Your task to perform on an android device: turn notification dots on Image 0: 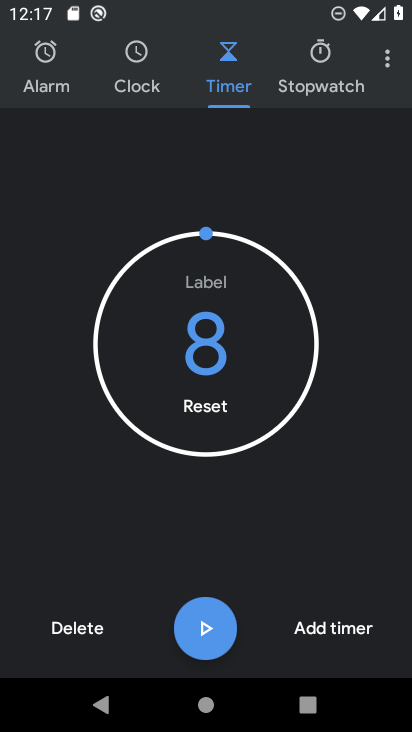
Step 0: press home button
Your task to perform on an android device: turn notification dots on Image 1: 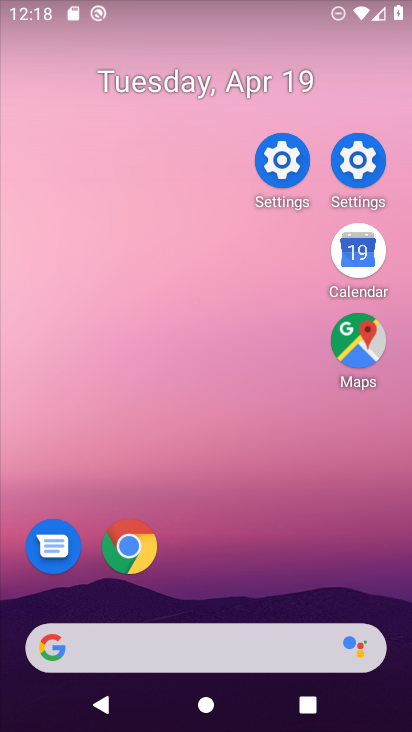
Step 1: drag from (276, 662) to (225, 181)
Your task to perform on an android device: turn notification dots on Image 2: 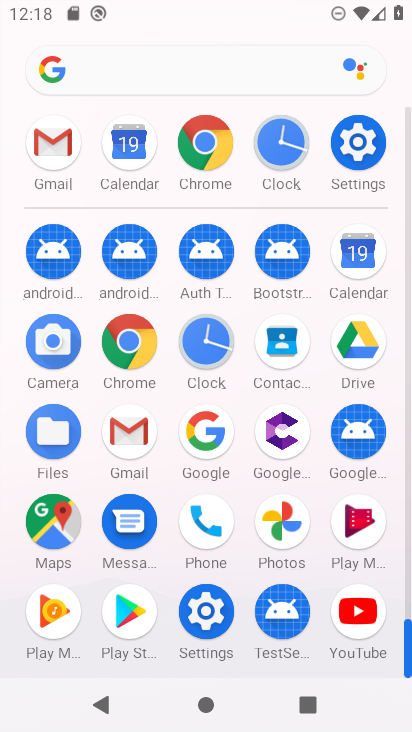
Step 2: click (355, 147)
Your task to perform on an android device: turn notification dots on Image 3: 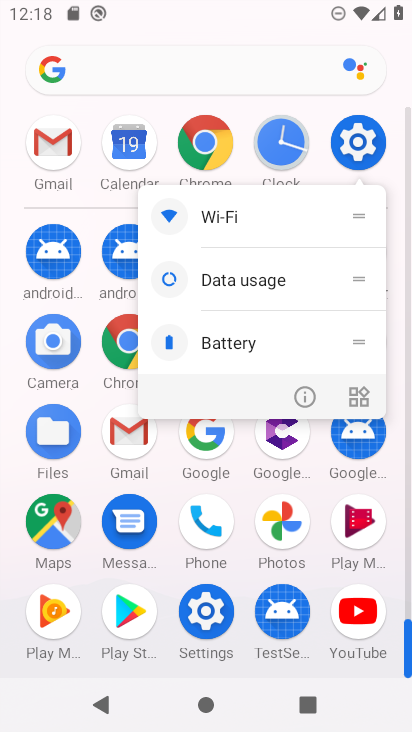
Step 3: click (356, 146)
Your task to perform on an android device: turn notification dots on Image 4: 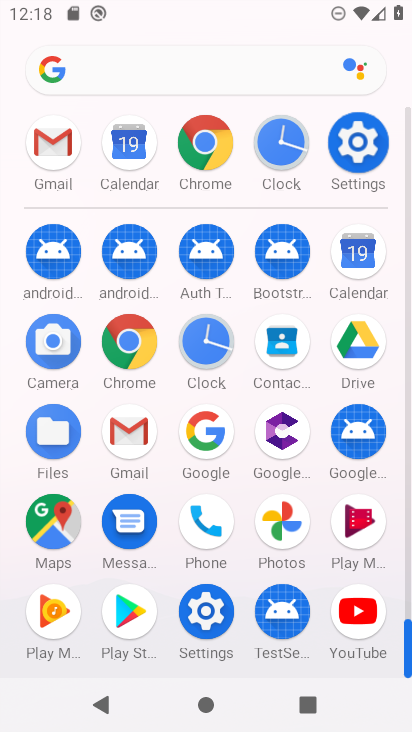
Step 4: click (356, 146)
Your task to perform on an android device: turn notification dots on Image 5: 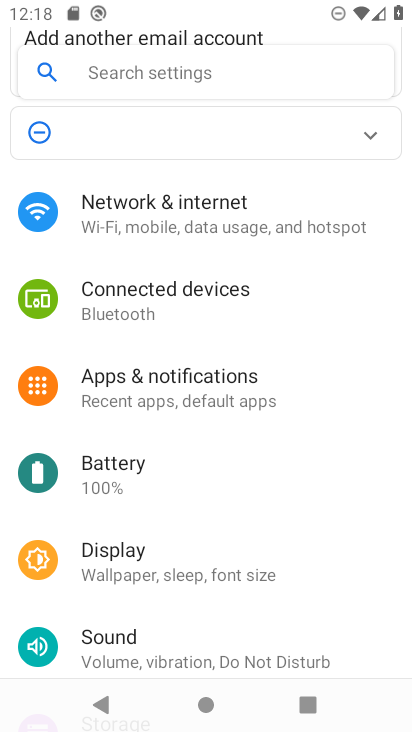
Step 5: click (169, 378)
Your task to perform on an android device: turn notification dots on Image 6: 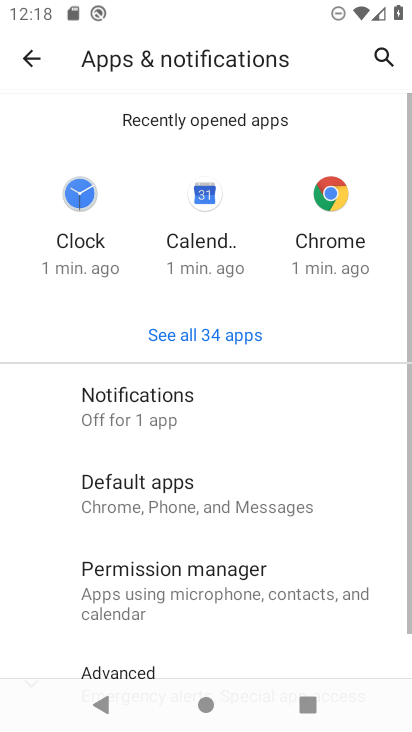
Step 6: drag from (167, 505) to (187, 213)
Your task to perform on an android device: turn notification dots on Image 7: 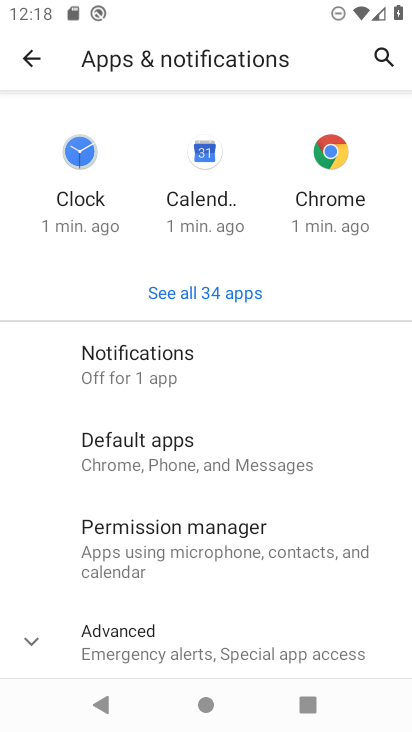
Step 7: drag from (243, 487) to (225, 171)
Your task to perform on an android device: turn notification dots on Image 8: 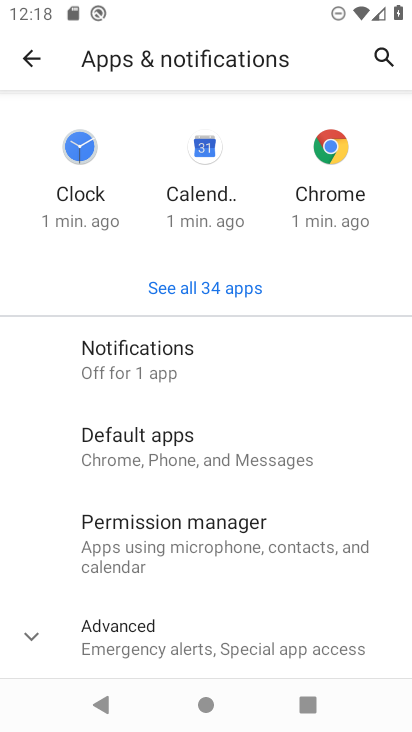
Step 8: drag from (182, 416) to (163, 155)
Your task to perform on an android device: turn notification dots on Image 9: 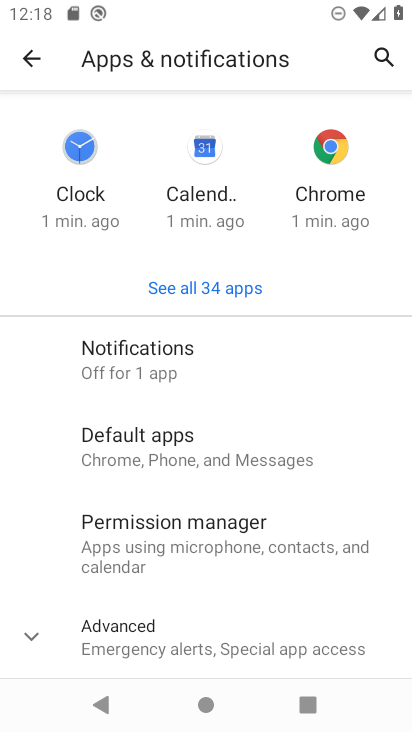
Step 9: click (130, 358)
Your task to perform on an android device: turn notification dots on Image 10: 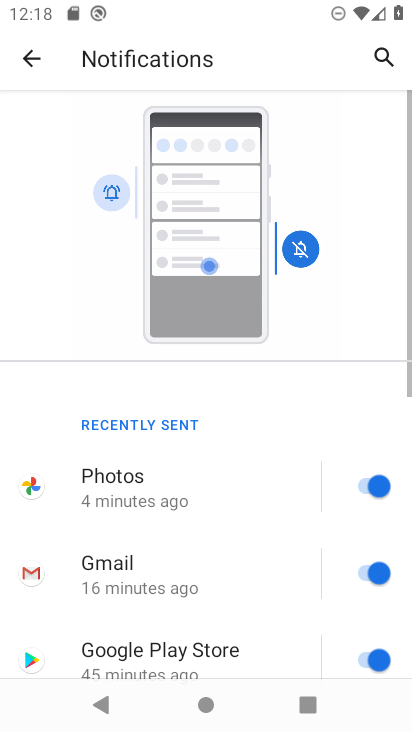
Step 10: drag from (256, 565) to (289, 245)
Your task to perform on an android device: turn notification dots on Image 11: 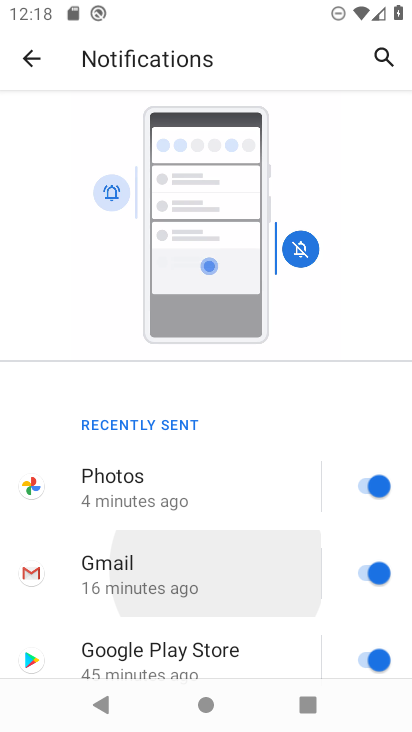
Step 11: drag from (284, 499) to (324, 122)
Your task to perform on an android device: turn notification dots on Image 12: 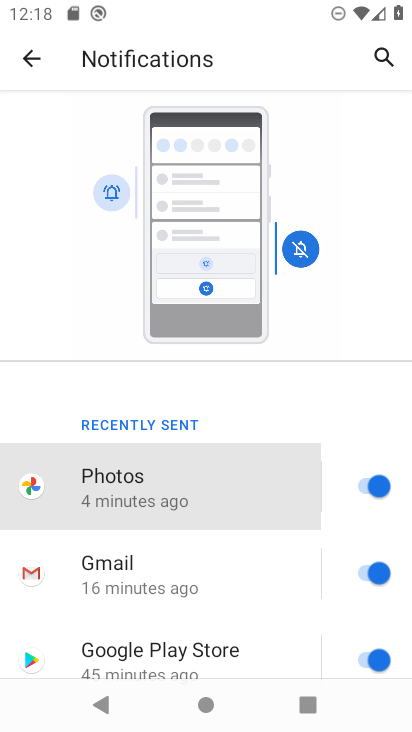
Step 12: drag from (286, 485) to (286, 120)
Your task to perform on an android device: turn notification dots on Image 13: 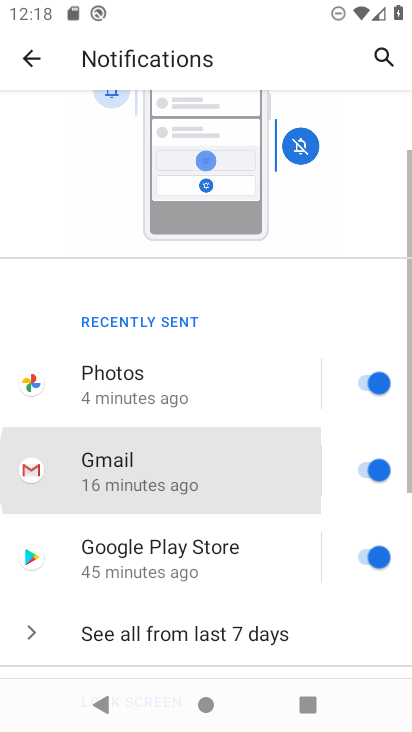
Step 13: drag from (223, 272) to (223, 189)
Your task to perform on an android device: turn notification dots on Image 14: 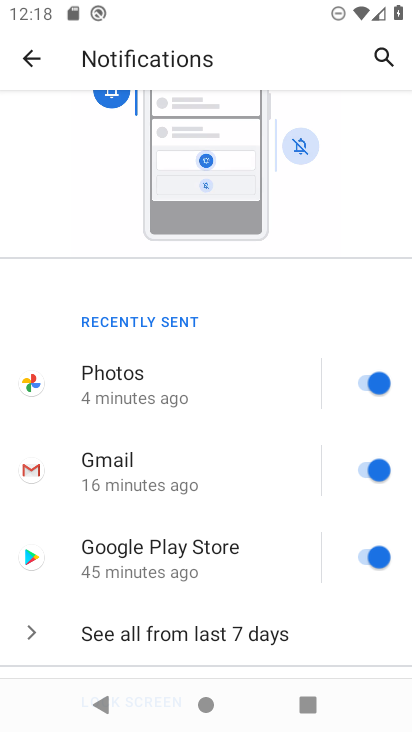
Step 14: drag from (208, 554) to (272, 173)
Your task to perform on an android device: turn notification dots on Image 15: 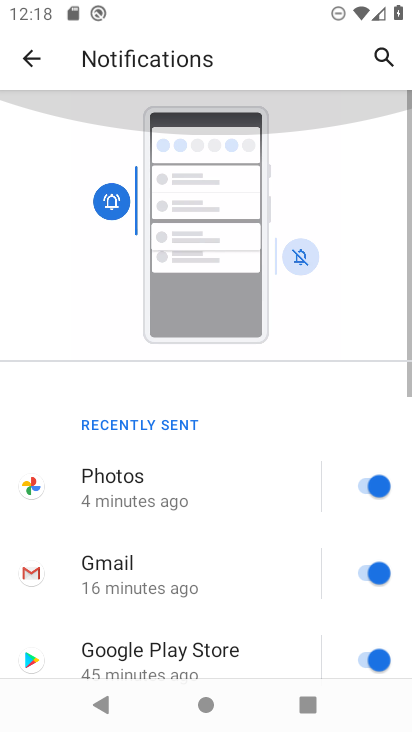
Step 15: drag from (221, 380) to (209, 196)
Your task to perform on an android device: turn notification dots on Image 16: 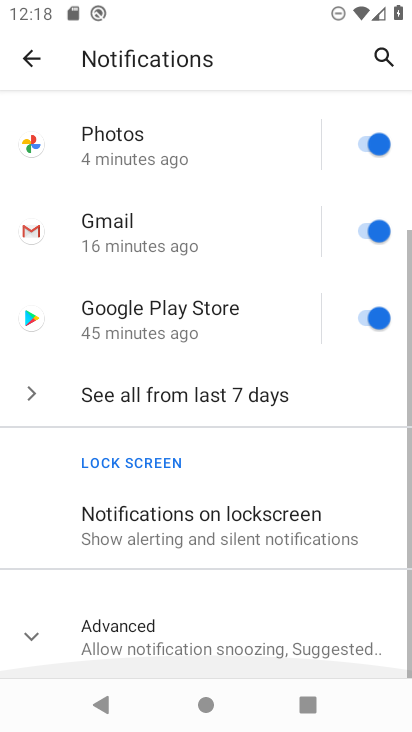
Step 16: drag from (233, 338) to (242, 294)
Your task to perform on an android device: turn notification dots on Image 17: 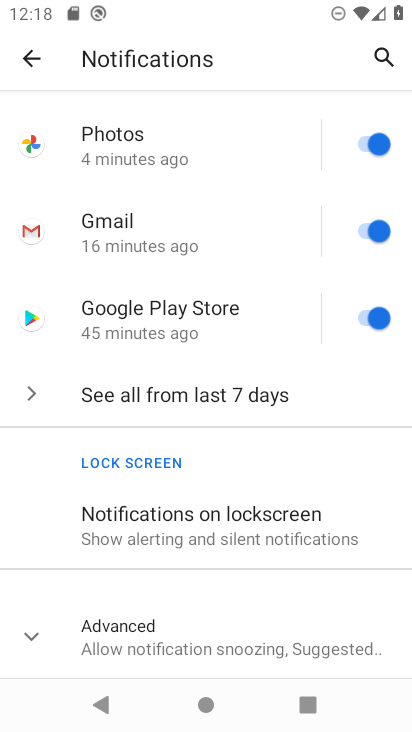
Step 17: click (140, 624)
Your task to perform on an android device: turn notification dots on Image 18: 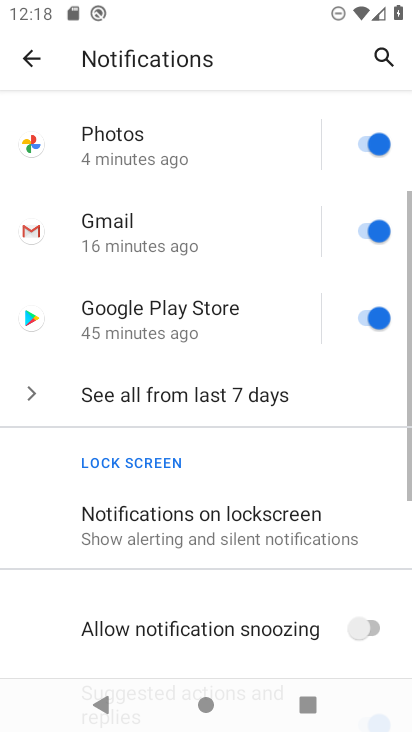
Step 18: drag from (253, 599) to (269, 285)
Your task to perform on an android device: turn notification dots on Image 19: 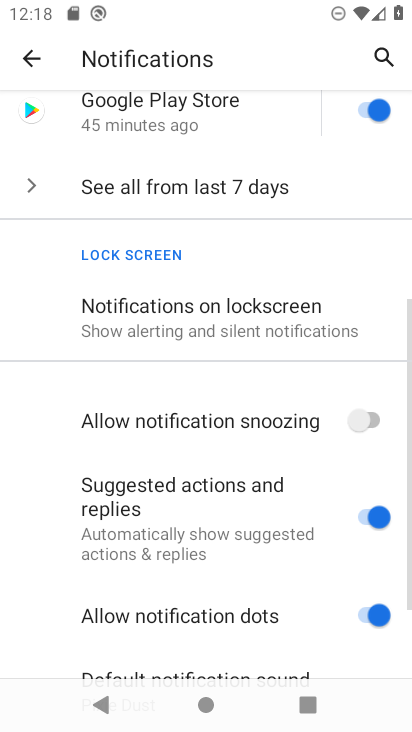
Step 19: drag from (176, 408) to (169, 215)
Your task to perform on an android device: turn notification dots on Image 20: 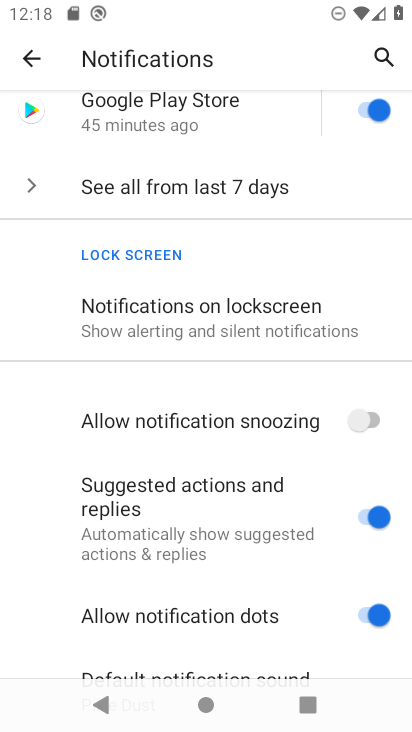
Step 20: click (374, 618)
Your task to perform on an android device: turn notification dots on Image 21: 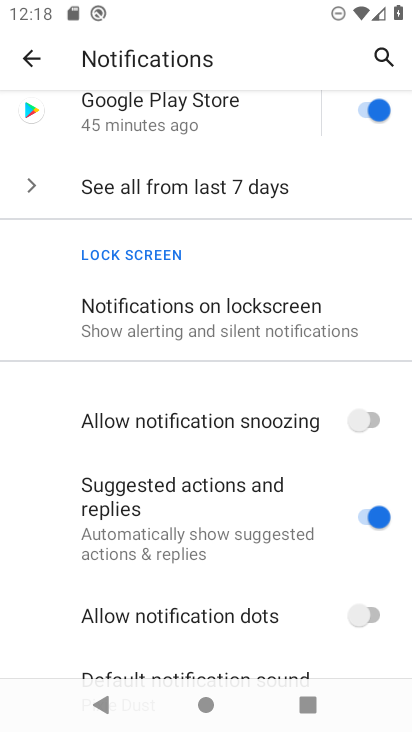
Step 21: task complete